Your task to perform on an android device: Search for Mexican restaurants on Maps Image 0: 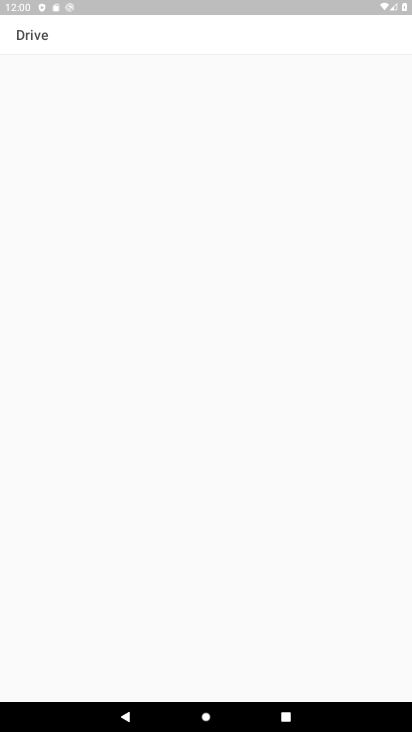
Step 0: press home button
Your task to perform on an android device: Search for Mexican restaurants on Maps Image 1: 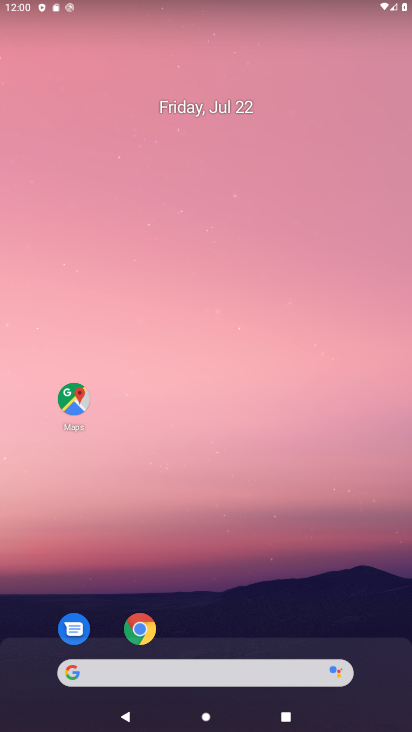
Step 1: click (61, 384)
Your task to perform on an android device: Search for Mexican restaurants on Maps Image 2: 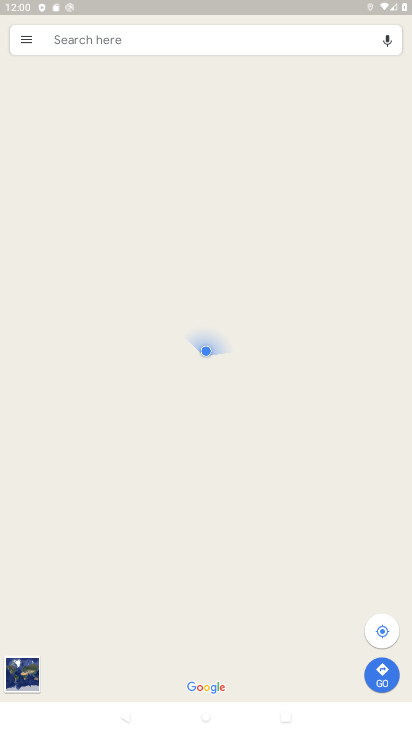
Step 2: click (124, 35)
Your task to perform on an android device: Search for Mexican restaurants on Maps Image 3: 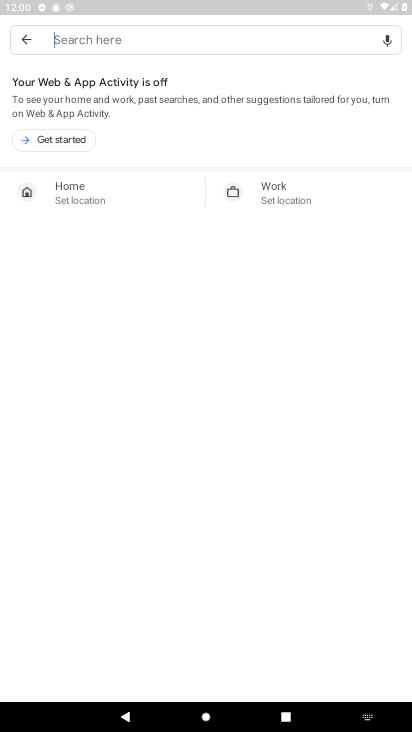
Step 3: type "mexican restaurant"
Your task to perform on an android device: Search for Mexican restaurants on Maps Image 4: 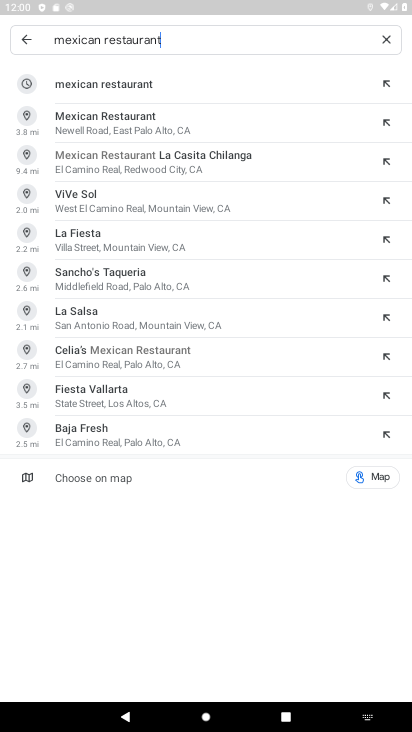
Step 4: click (184, 85)
Your task to perform on an android device: Search for Mexican restaurants on Maps Image 5: 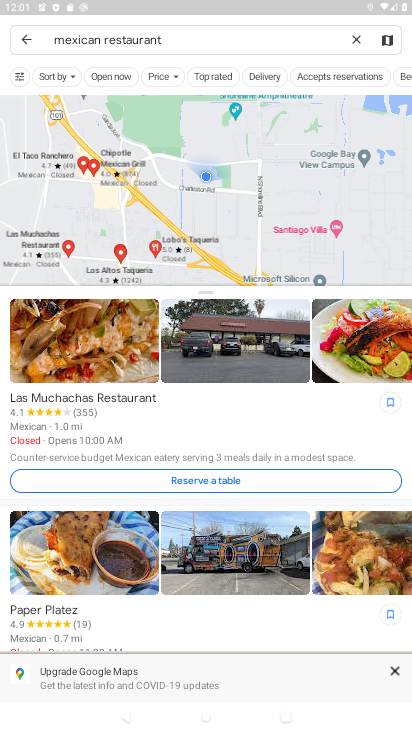
Step 5: task complete